Your task to perform on an android device: open the mobile data screen to see how much data has been used Image 0: 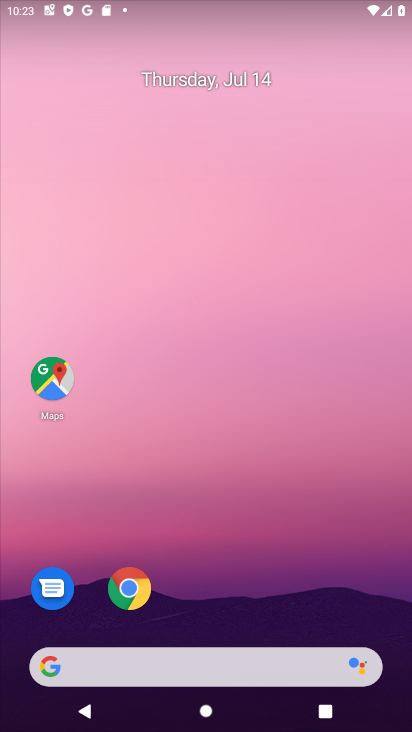
Step 0: drag from (168, 652) to (294, 220)
Your task to perform on an android device: open the mobile data screen to see how much data has been used Image 1: 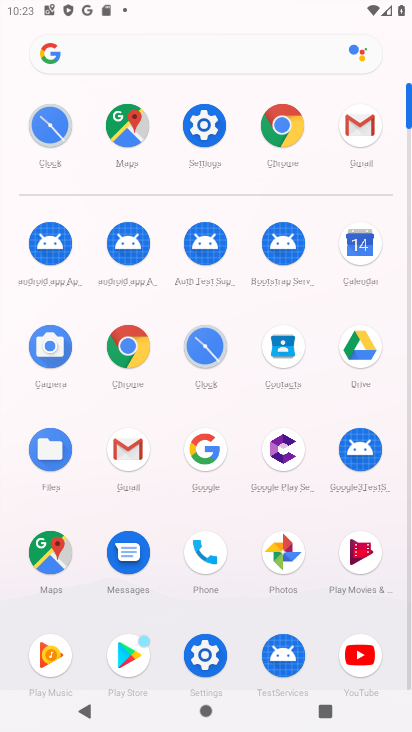
Step 1: click (192, 130)
Your task to perform on an android device: open the mobile data screen to see how much data has been used Image 2: 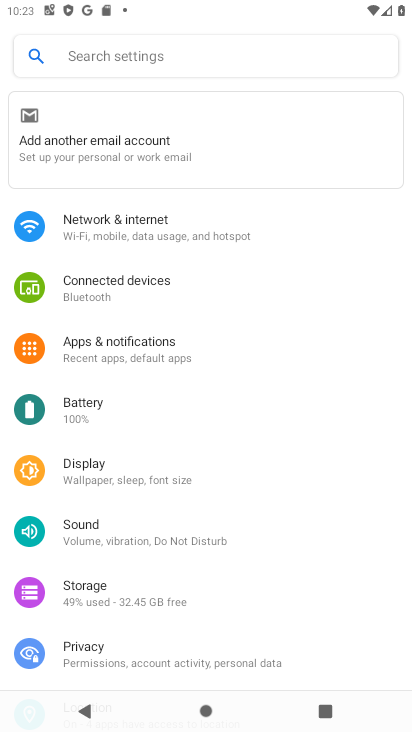
Step 2: click (118, 220)
Your task to perform on an android device: open the mobile data screen to see how much data has been used Image 3: 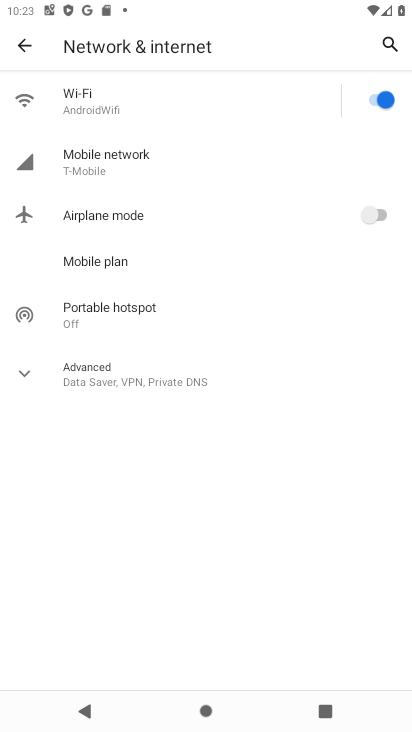
Step 3: click (104, 158)
Your task to perform on an android device: open the mobile data screen to see how much data has been used Image 4: 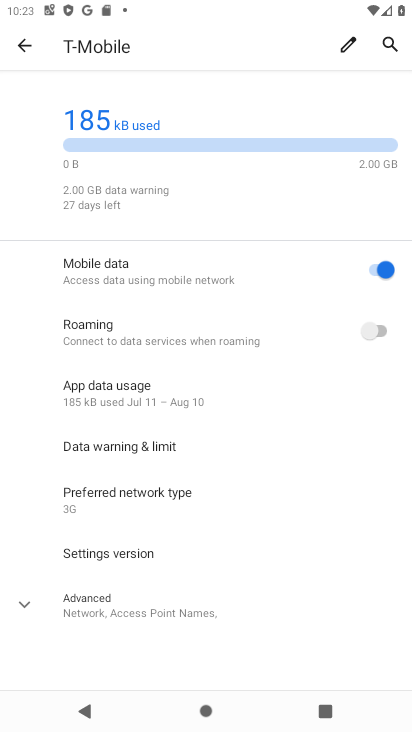
Step 4: task complete